Your task to perform on an android device: Open the Play Movies app and select the watchlist tab. Image 0: 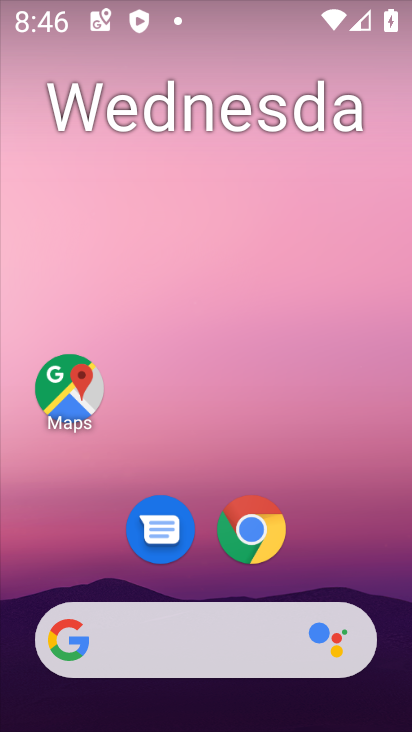
Step 0: drag from (306, 466) to (280, 242)
Your task to perform on an android device: Open the Play Movies app and select the watchlist tab. Image 1: 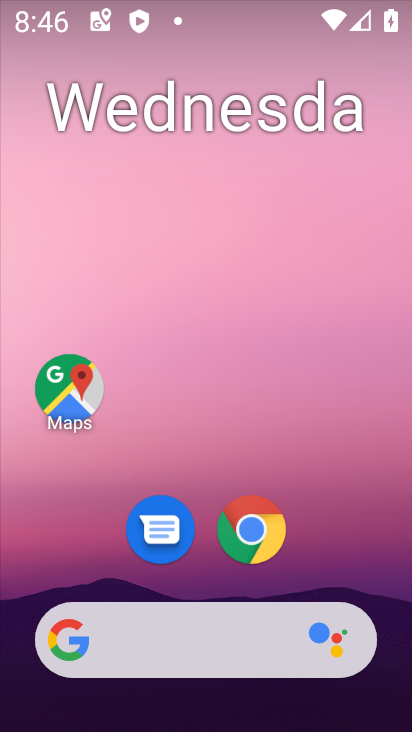
Step 1: drag from (294, 567) to (281, 149)
Your task to perform on an android device: Open the Play Movies app and select the watchlist tab. Image 2: 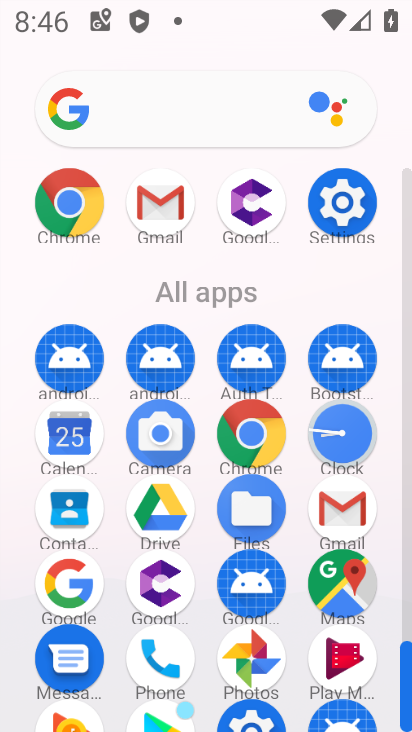
Step 2: click (322, 662)
Your task to perform on an android device: Open the Play Movies app and select the watchlist tab. Image 3: 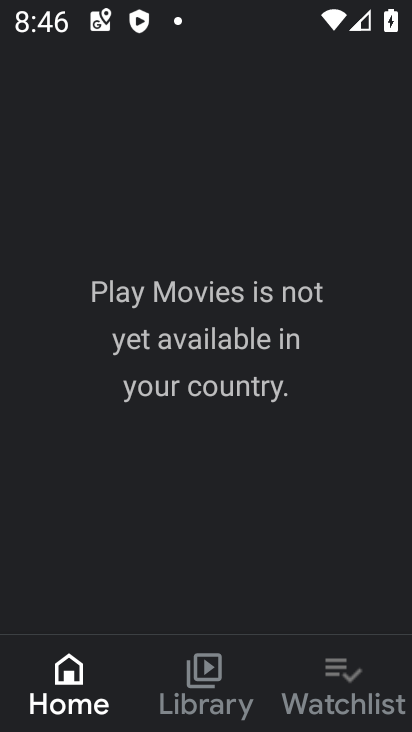
Step 3: click (335, 666)
Your task to perform on an android device: Open the Play Movies app and select the watchlist tab. Image 4: 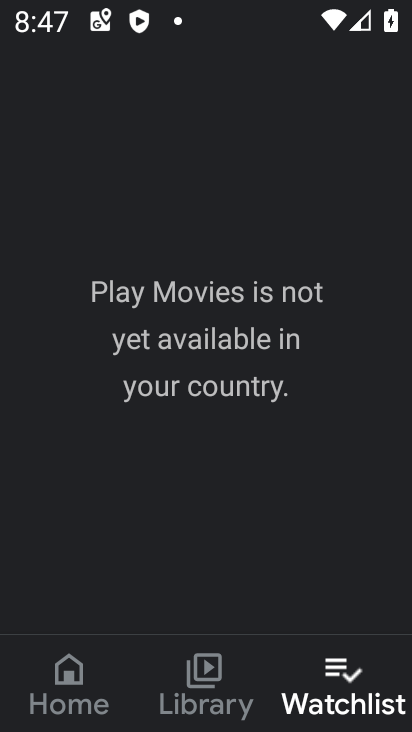
Step 4: task complete